Your task to perform on an android device: turn off wifi Image 0: 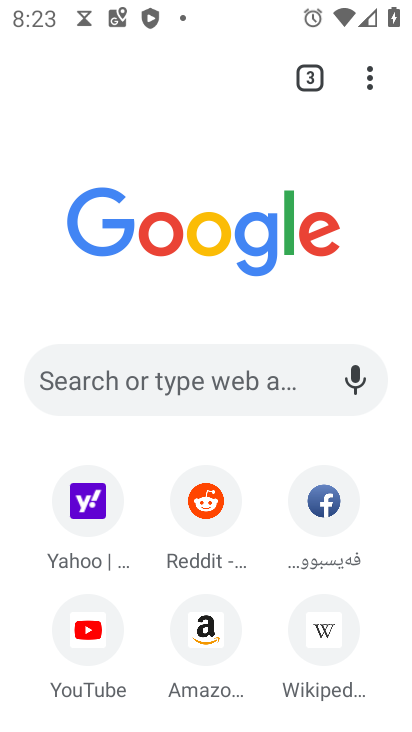
Step 0: press back button
Your task to perform on an android device: turn off wifi Image 1: 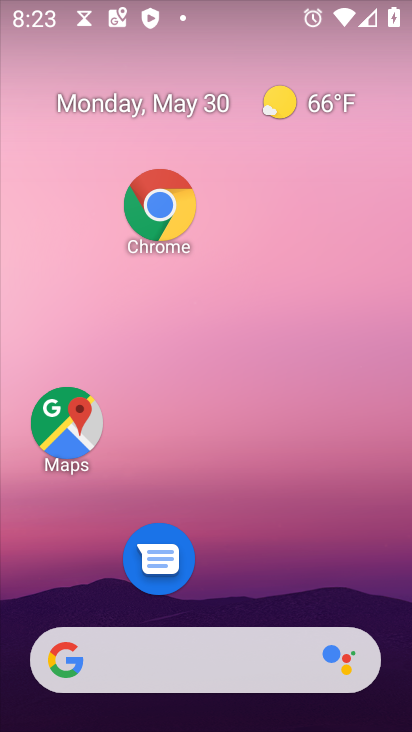
Step 1: drag from (249, 694) to (163, 103)
Your task to perform on an android device: turn off wifi Image 2: 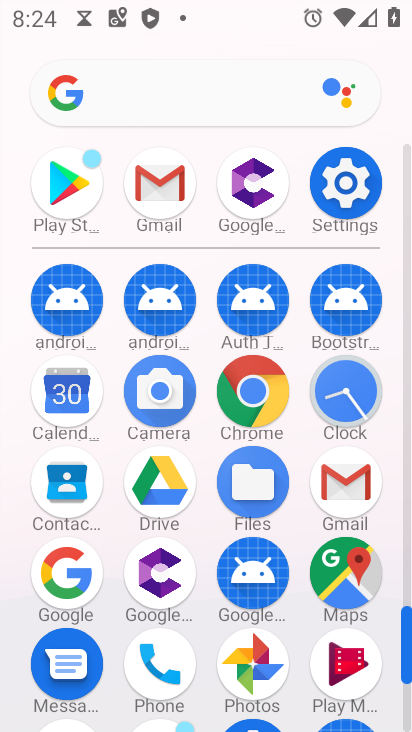
Step 2: click (332, 169)
Your task to perform on an android device: turn off wifi Image 3: 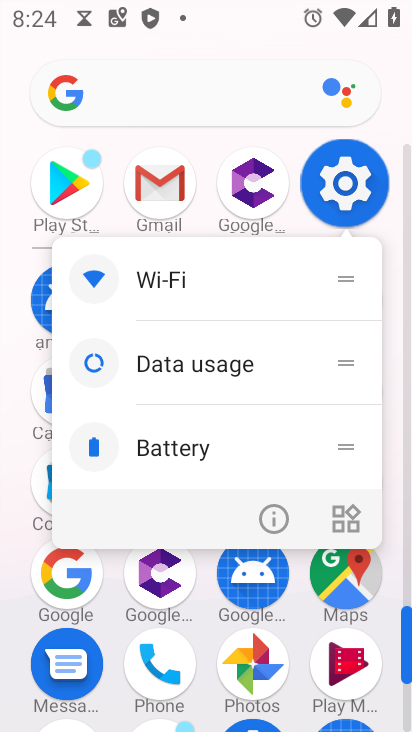
Step 3: click (333, 170)
Your task to perform on an android device: turn off wifi Image 4: 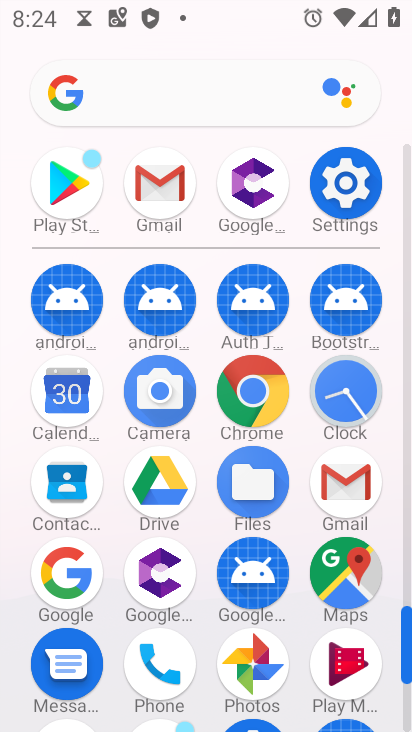
Step 4: click (350, 194)
Your task to perform on an android device: turn off wifi Image 5: 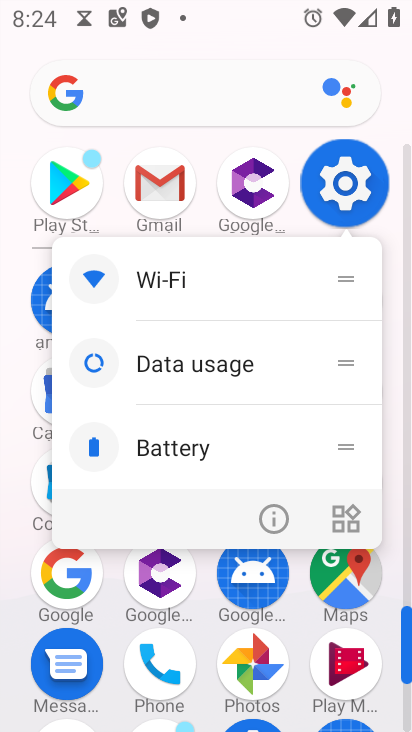
Step 5: click (345, 194)
Your task to perform on an android device: turn off wifi Image 6: 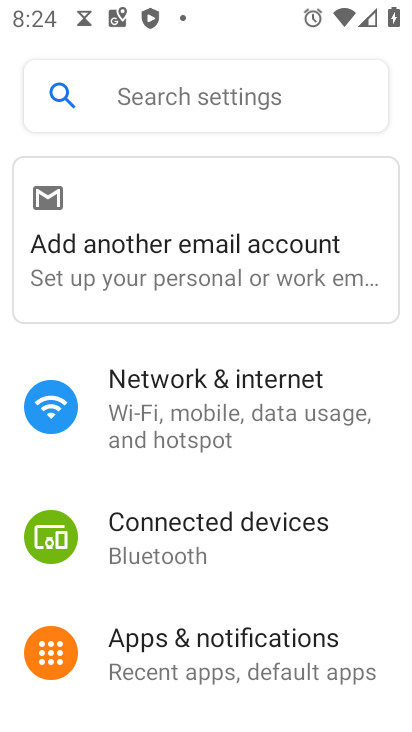
Step 6: click (175, 412)
Your task to perform on an android device: turn off wifi Image 7: 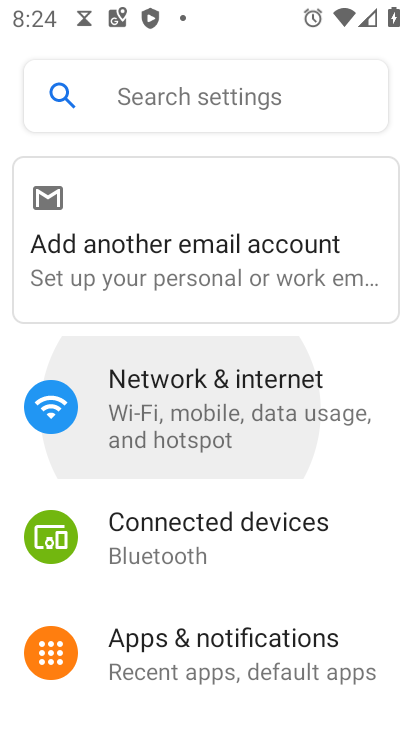
Step 7: click (175, 417)
Your task to perform on an android device: turn off wifi Image 8: 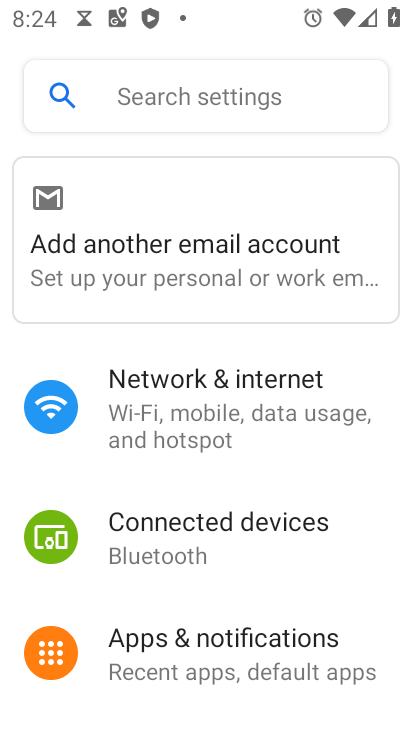
Step 8: click (181, 412)
Your task to perform on an android device: turn off wifi Image 9: 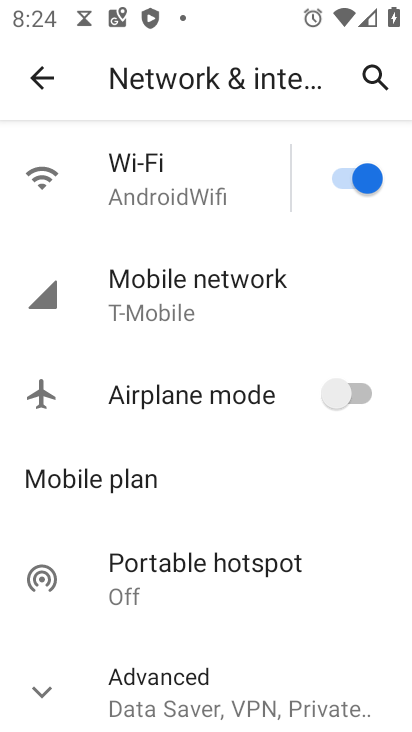
Step 9: click (358, 180)
Your task to perform on an android device: turn off wifi Image 10: 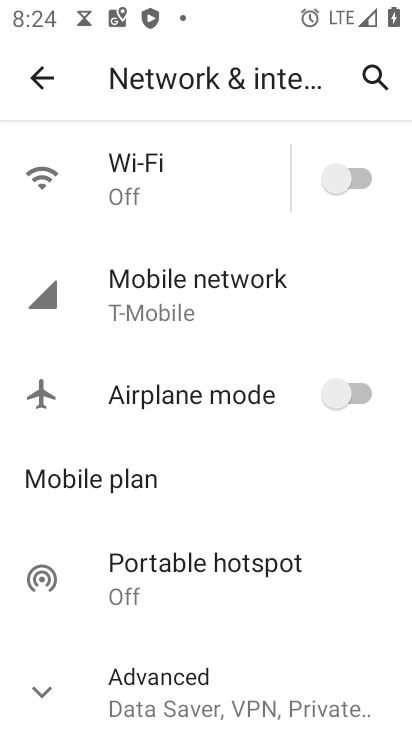
Step 10: task complete